Your task to perform on an android device: Search for Mexican restaurants on Maps Image 0: 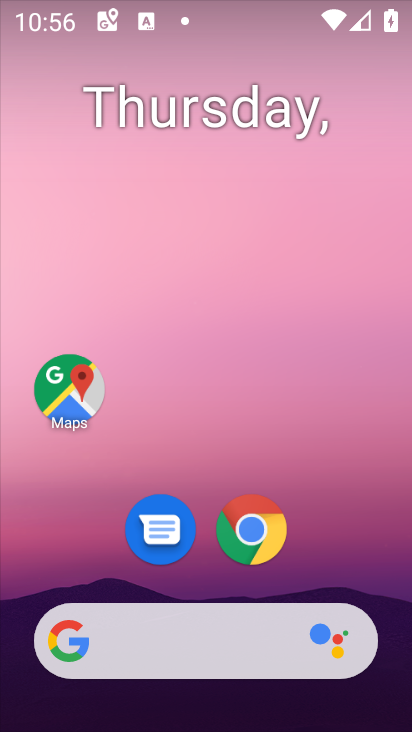
Step 0: drag from (320, 274) to (342, 137)
Your task to perform on an android device: Search for Mexican restaurants on Maps Image 1: 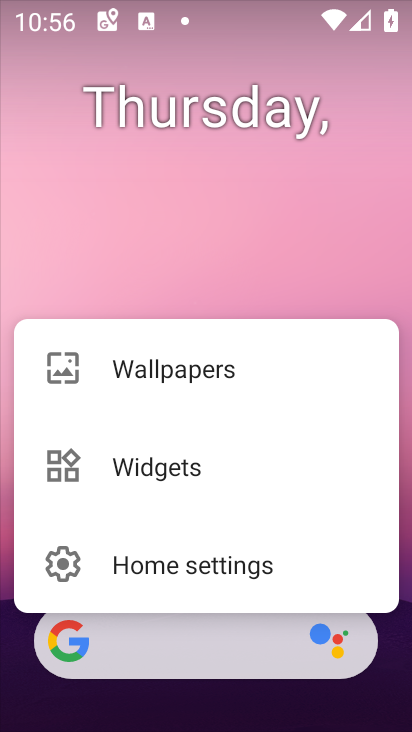
Step 1: click (233, 117)
Your task to perform on an android device: Search for Mexican restaurants on Maps Image 2: 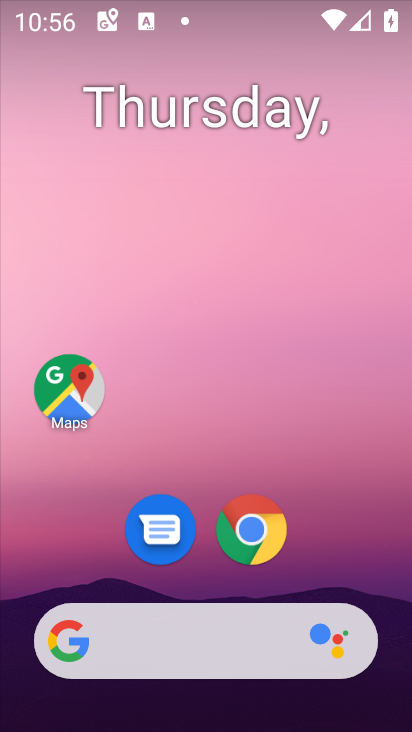
Step 2: click (211, 232)
Your task to perform on an android device: Search for Mexican restaurants on Maps Image 3: 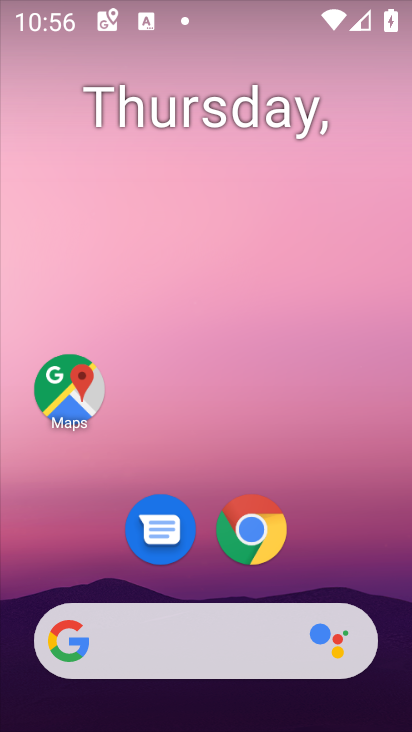
Step 3: click (81, 406)
Your task to perform on an android device: Search for Mexican restaurants on Maps Image 4: 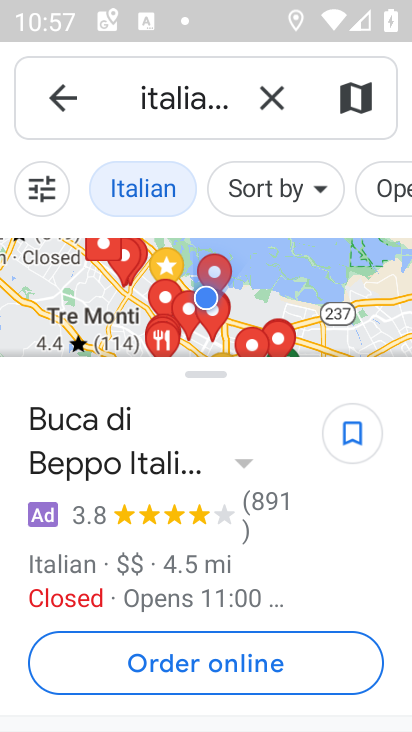
Step 4: click (291, 109)
Your task to perform on an android device: Search for Mexican restaurants on Maps Image 5: 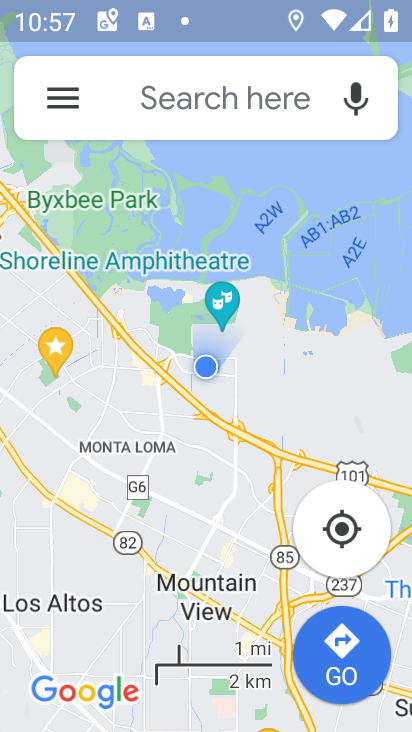
Step 5: click (234, 125)
Your task to perform on an android device: Search for Mexican restaurants on Maps Image 6: 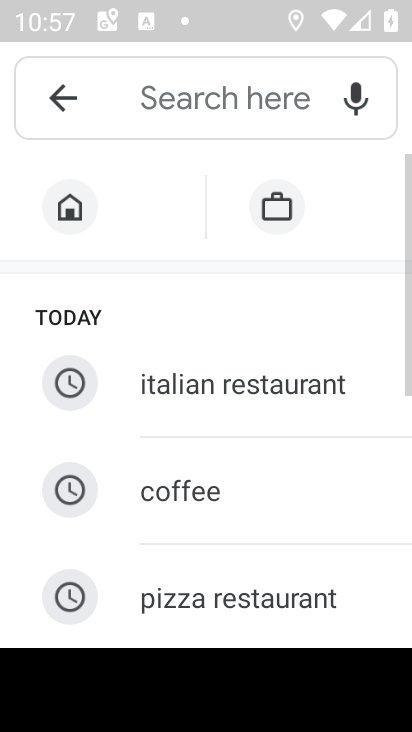
Step 6: drag from (176, 445) to (145, 106)
Your task to perform on an android device: Search for Mexican restaurants on Maps Image 7: 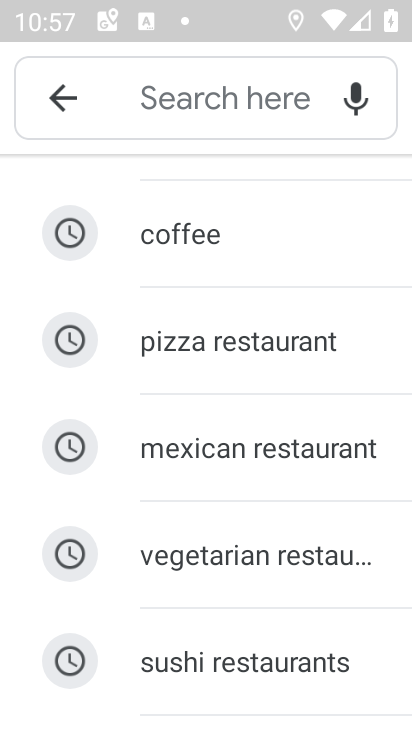
Step 7: click (217, 434)
Your task to perform on an android device: Search for Mexican restaurants on Maps Image 8: 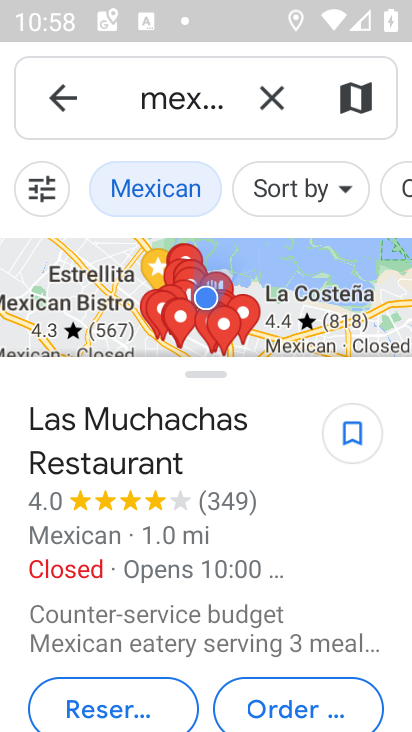
Step 8: task complete